Your task to perform on an android device: Go to Maps Image 0: 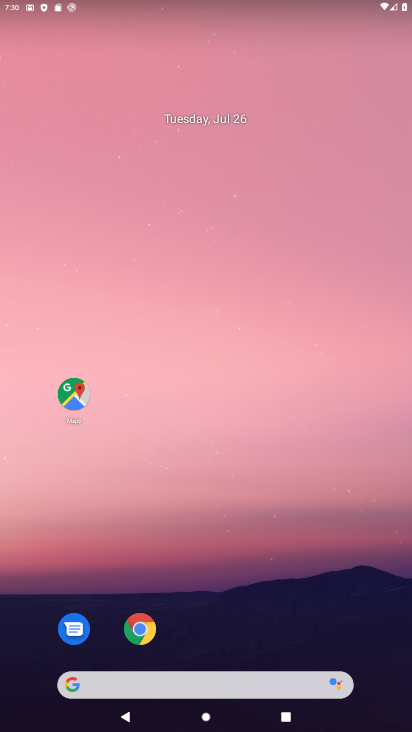
Step 0: press home button
Your task to perform on an android device: Go to Maps Image 1: 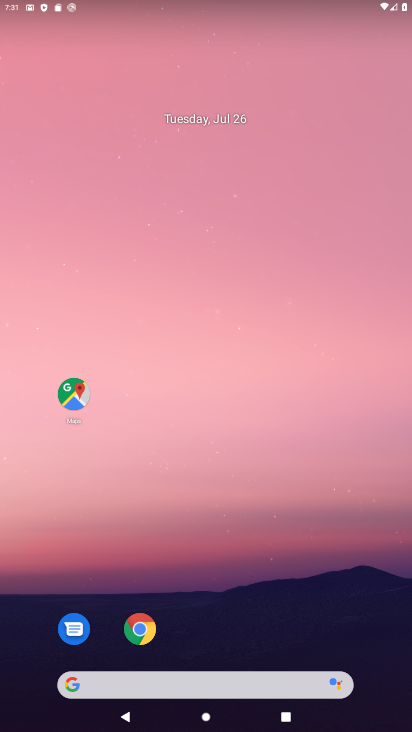
Step 1: click (71, 389)
Your task to perform on an android device: Go to Maps Image 2: 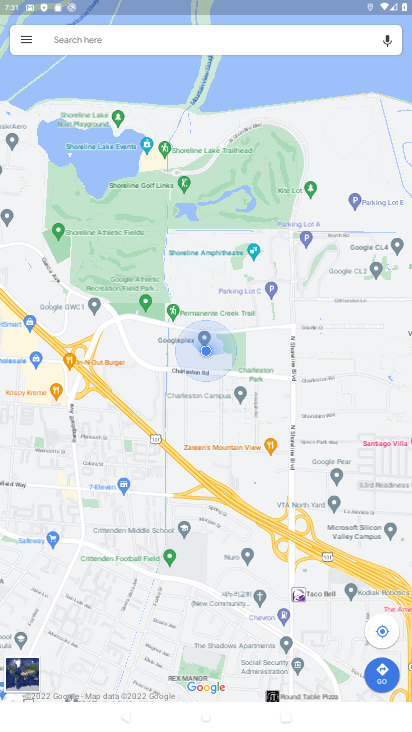
Step 2: task complete